Your task to perform on an android device: turn off location Image 0: 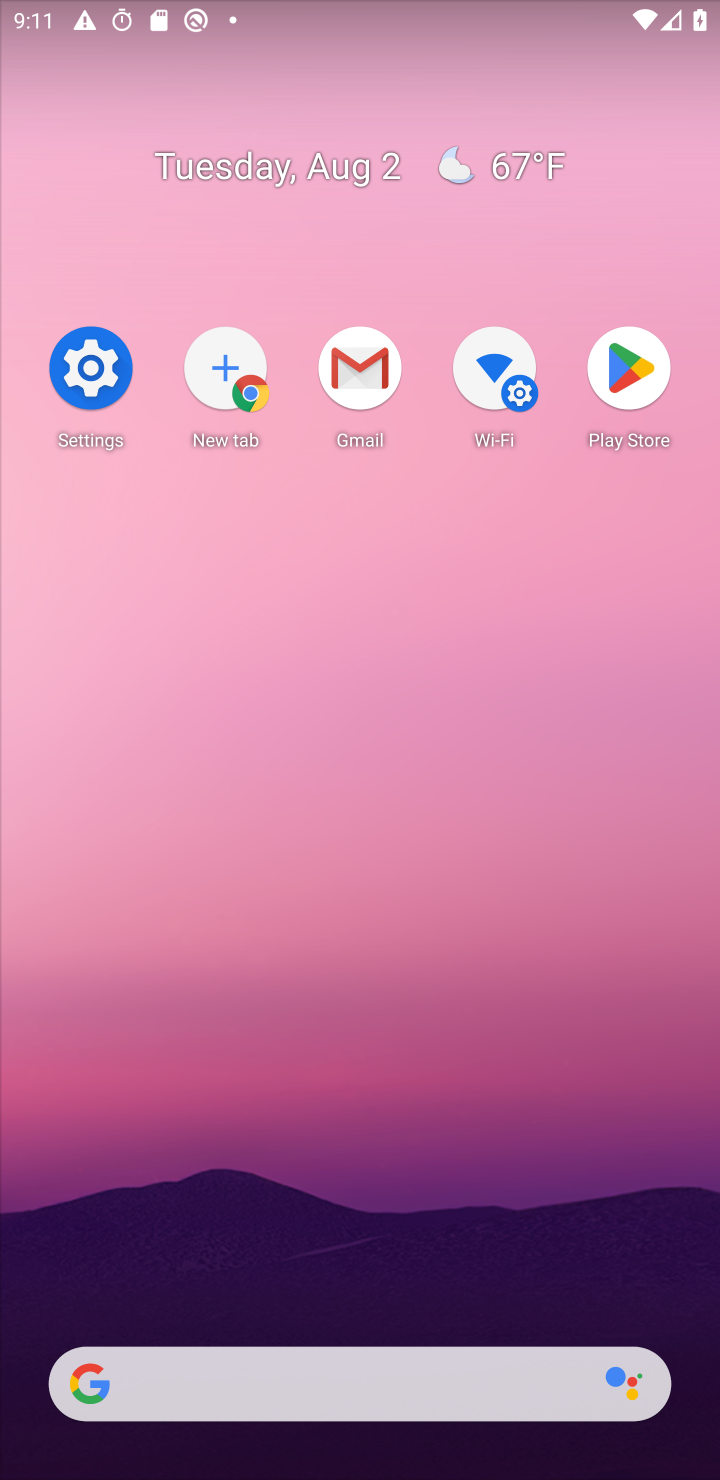
Step 0: drag from (404, 1289) to (398, 162)
Your task to perform on an android device: turn off location Image 1: 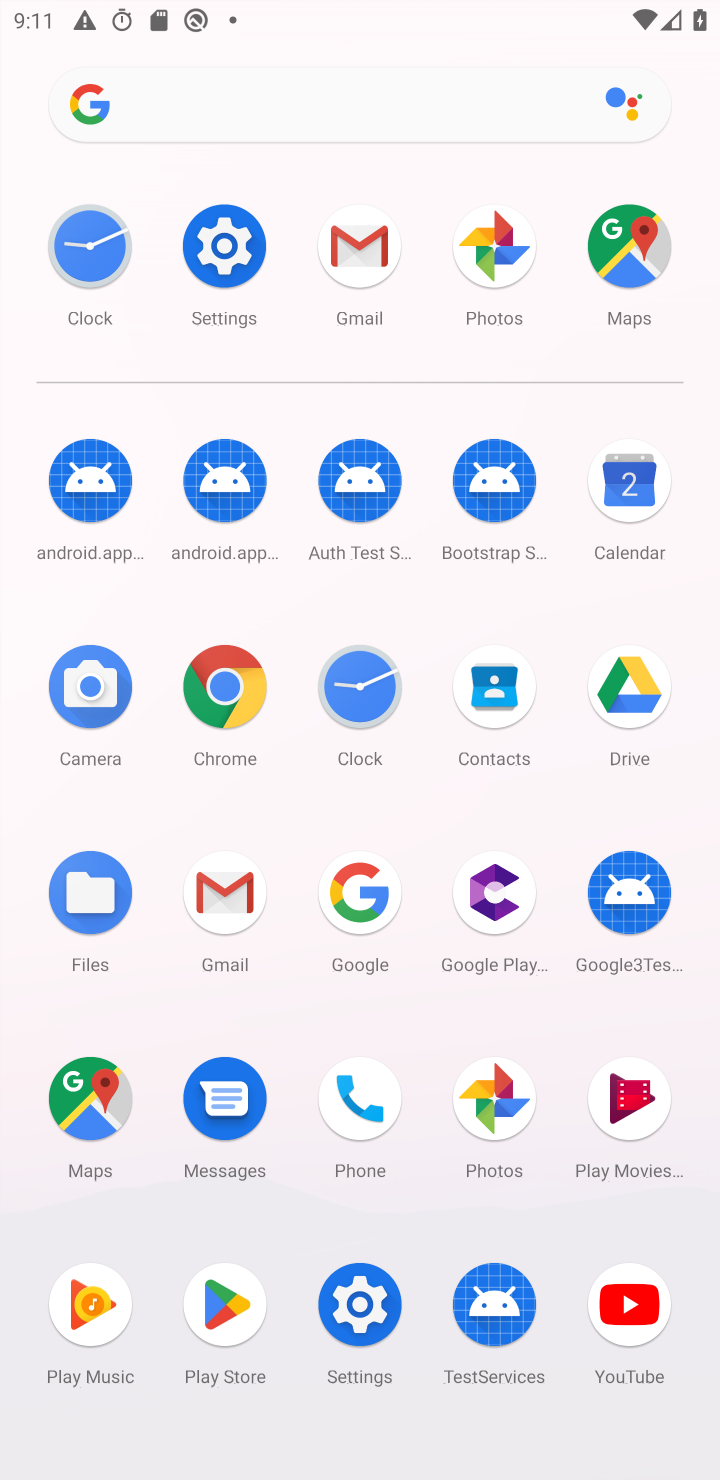
Step 1: click (370, 1314)
Your task to perform on an android device: turn off location Image 2: 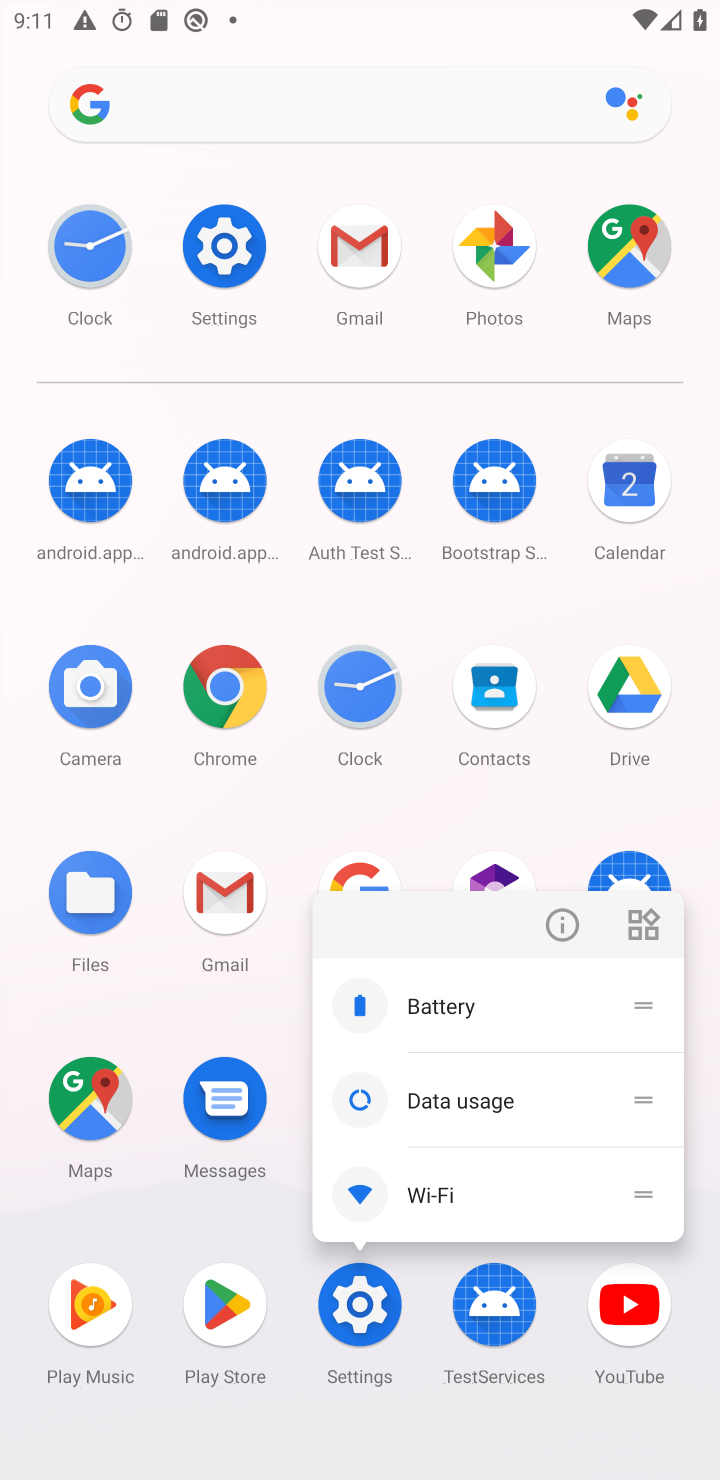
Step 2: click (373, 1314)
Your task to perform on an android device: turn off location Image 3: 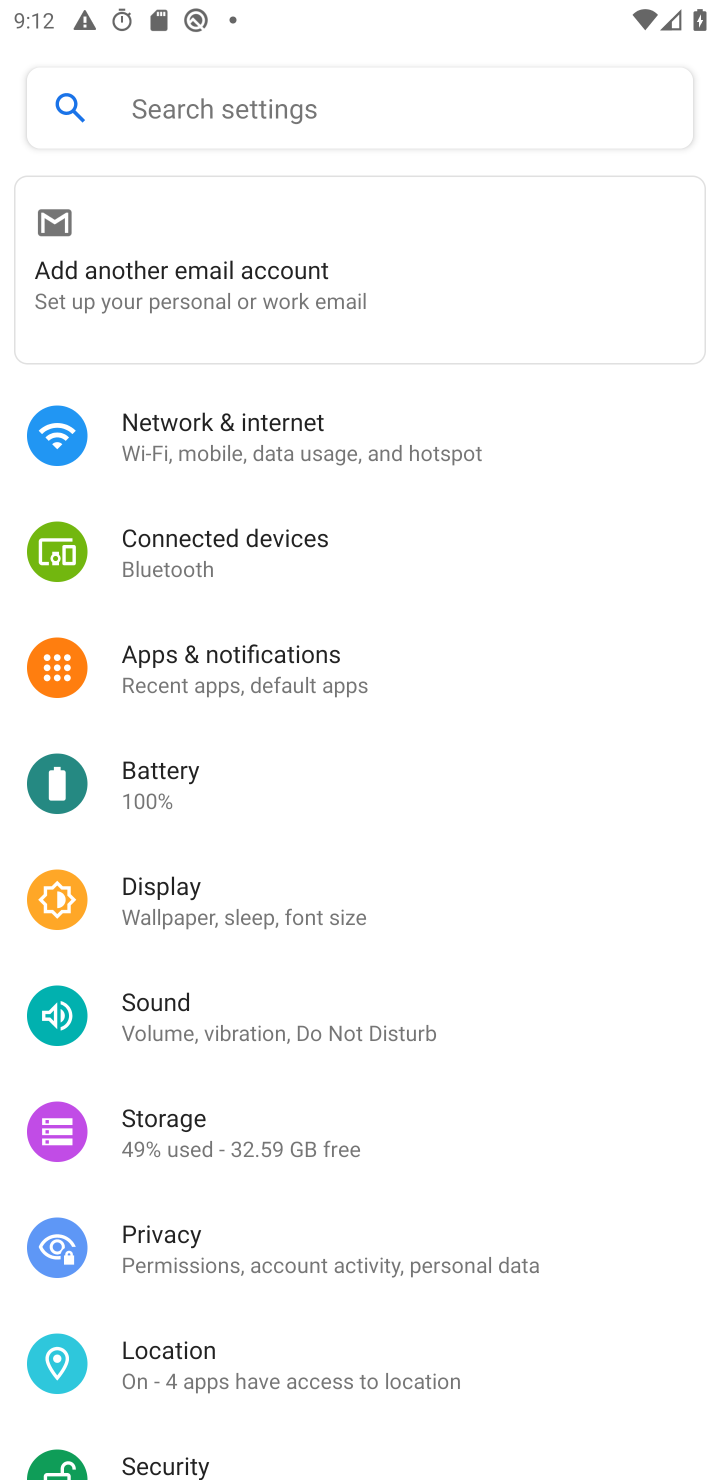
Step 3: click (172, 1364)
Your task to perform on an android device: turn off location Image 4: 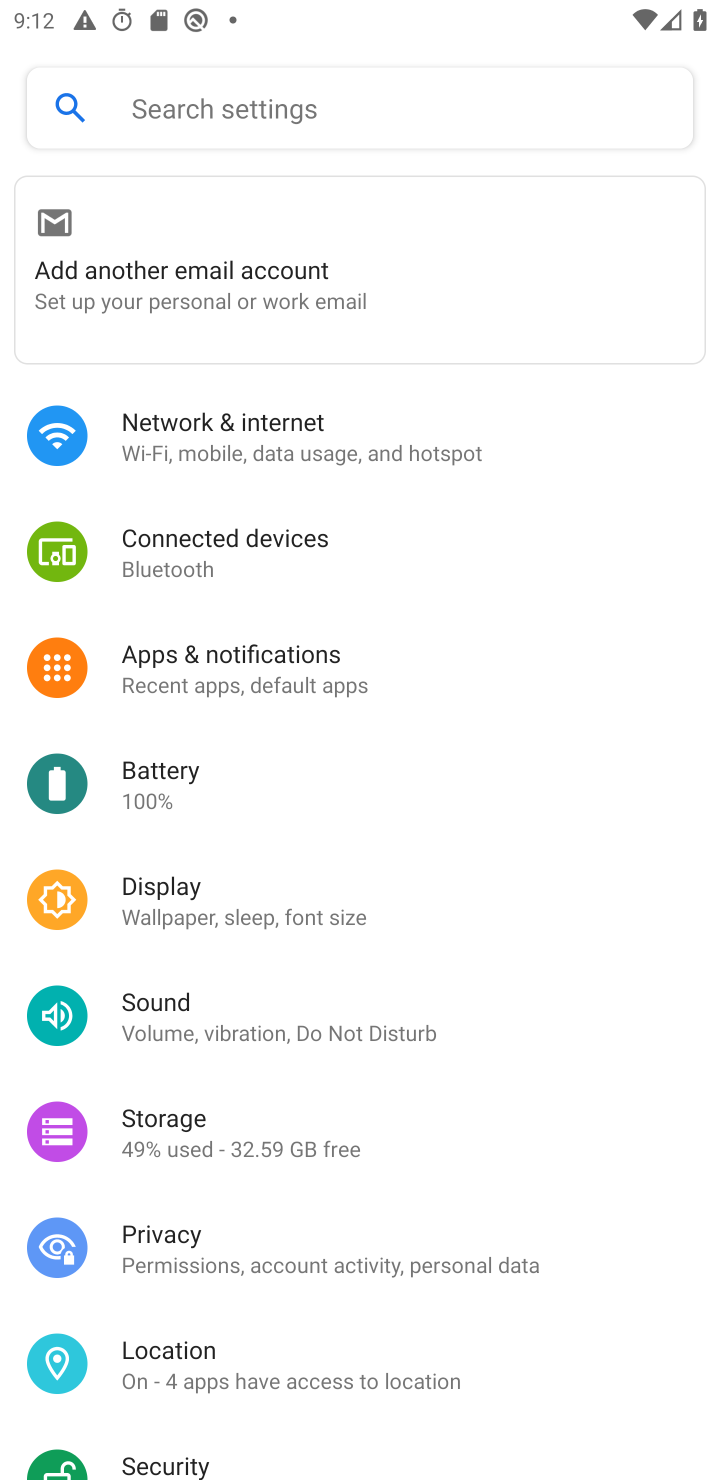
Step 4: click (192, 1374)
Your task to perform on an android device: turn off location Image 5: 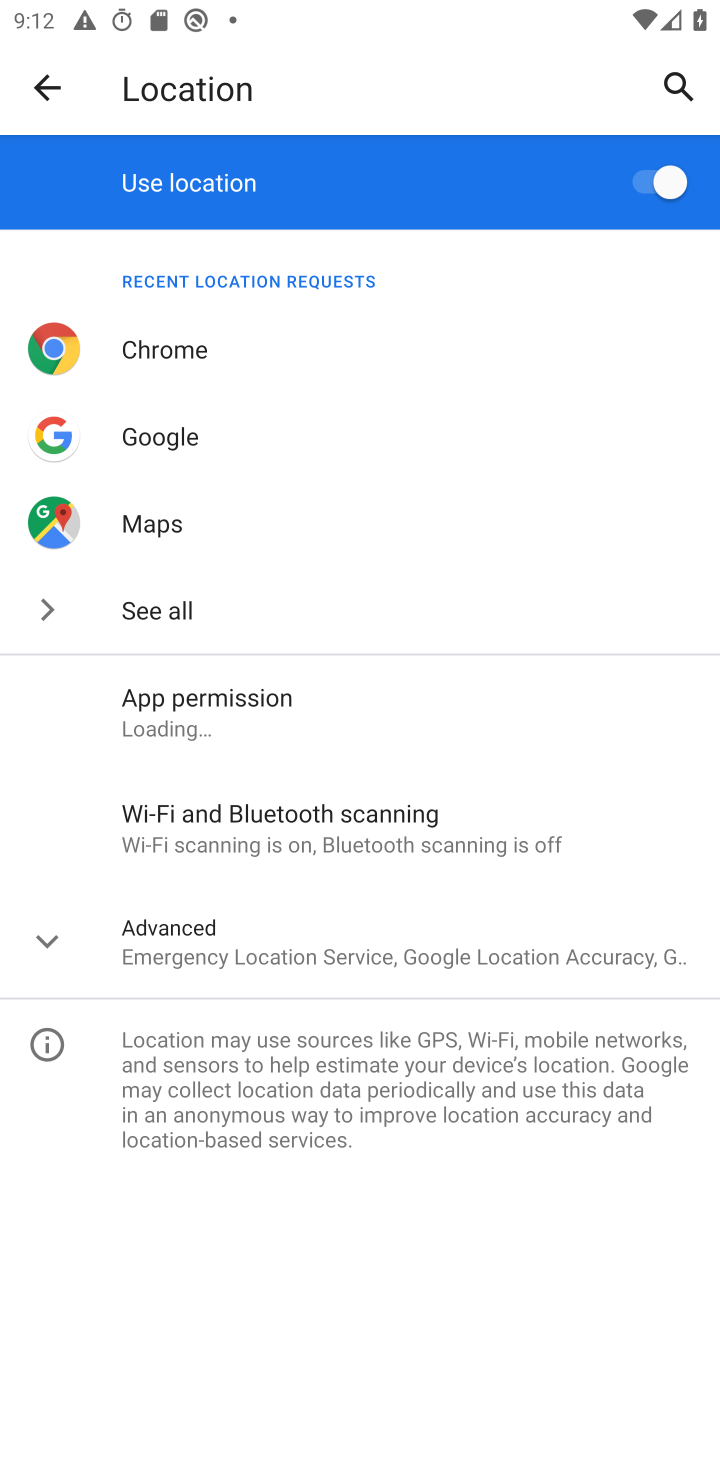
Step 5: click (652, 186)
Your task to perform on an android device: turn off location Image 6: 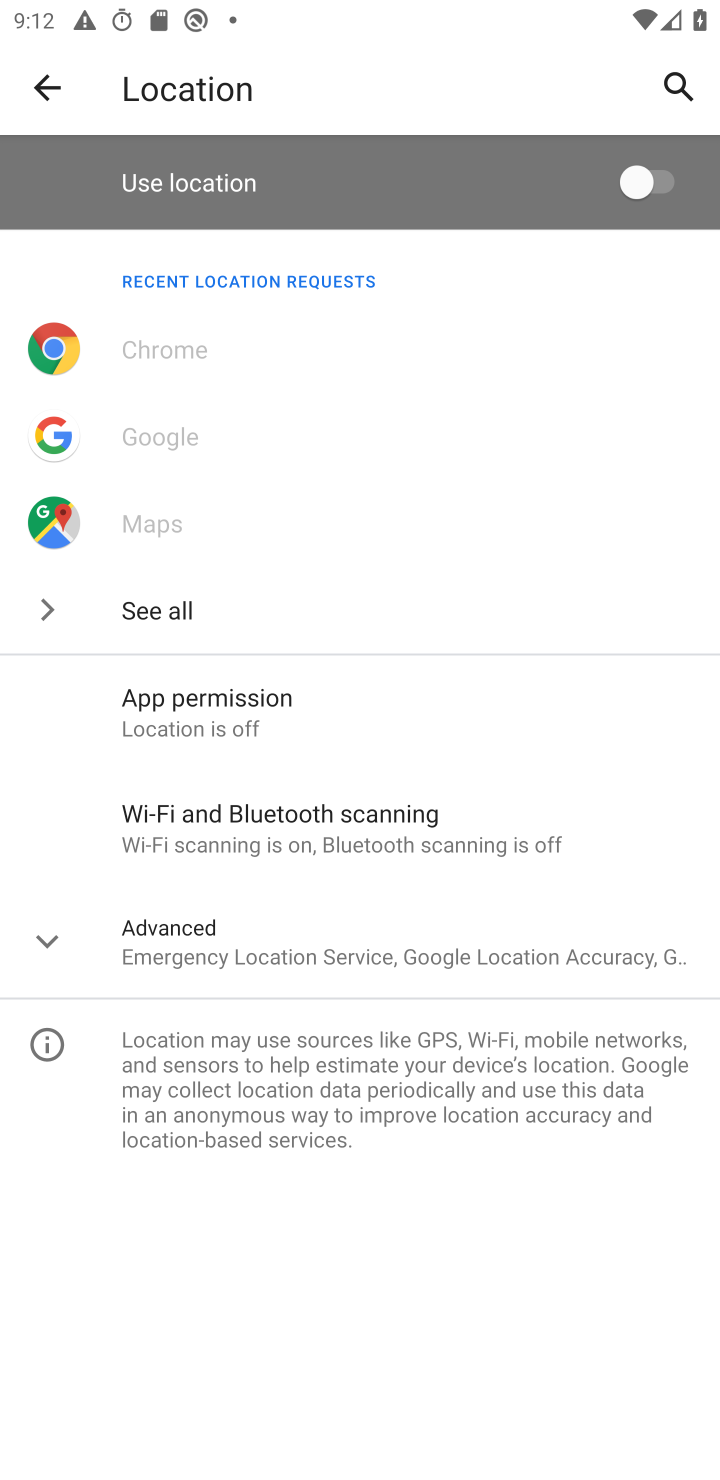
Step 6: task complete